Your task to perform on an android device: allow notifications from all sites in the chrome app Image 0: 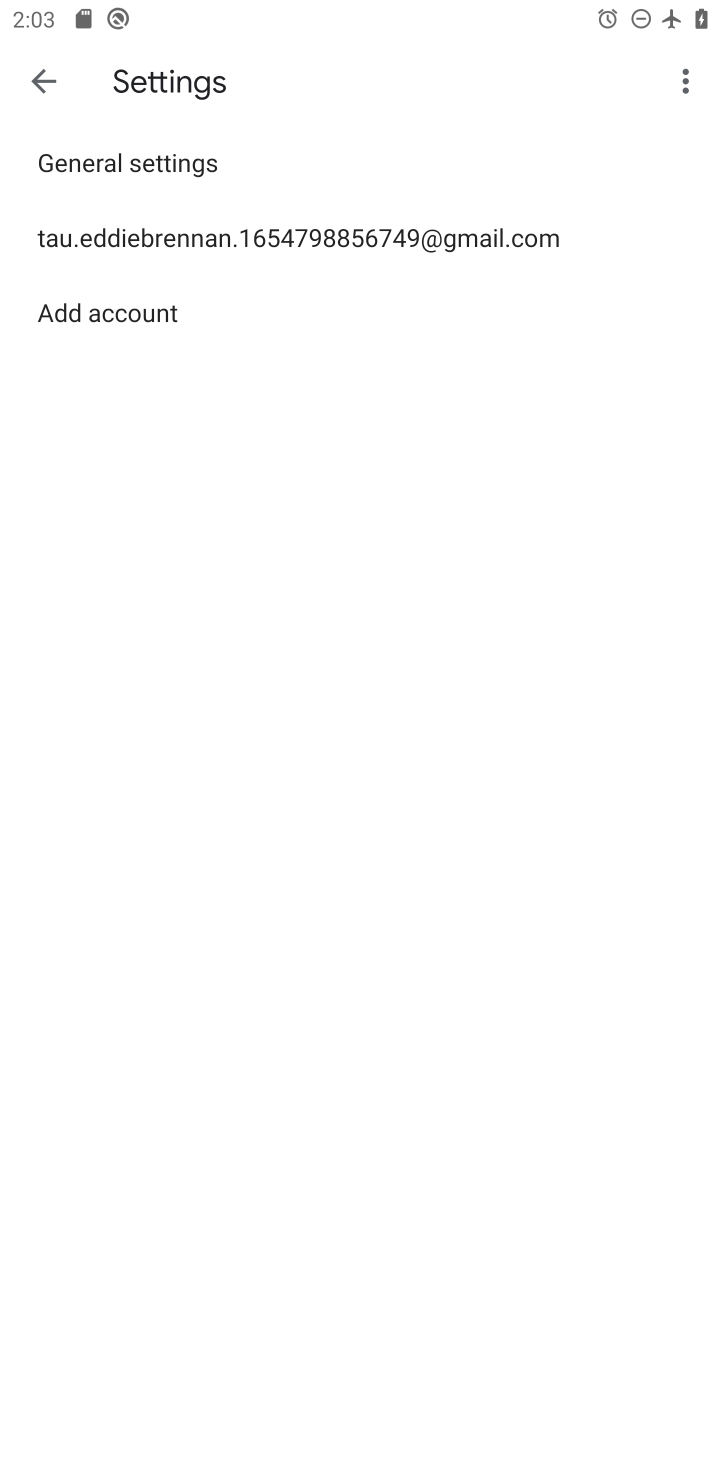
Step 0: press home button
Your task to perform on an android device: allow notifications from all sites in the chrome app Image 1: 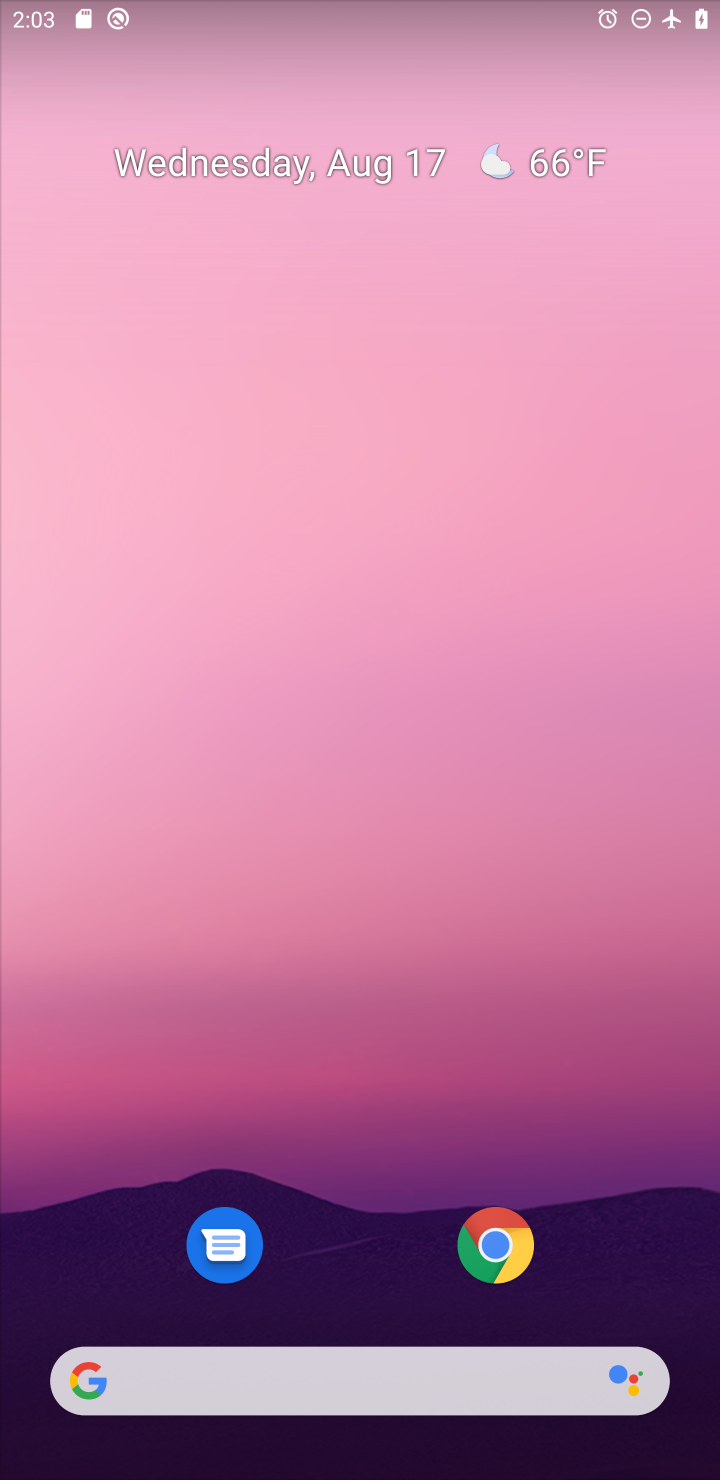
Step 1: click (495, 1237)
Your task to perform on an android device: allow notifications from all sites in the chrome app Image 2: 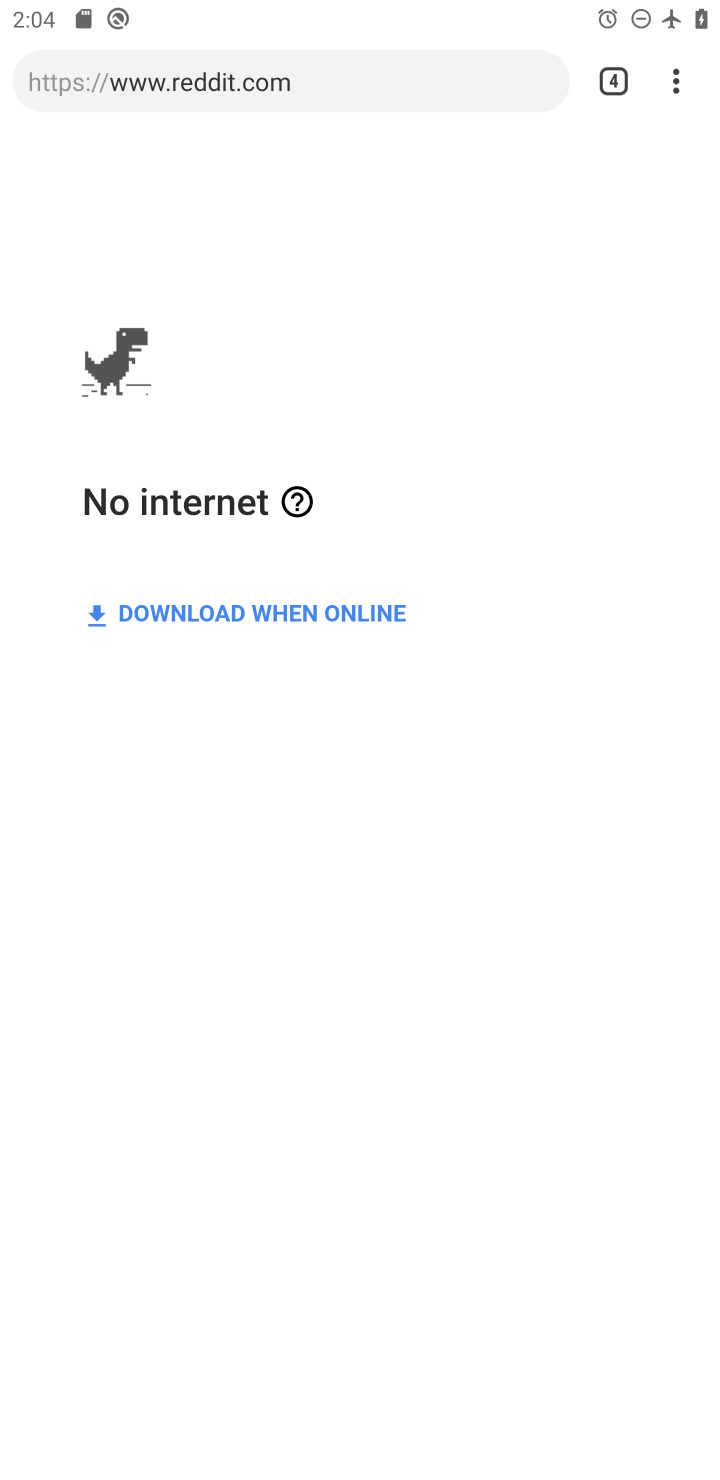
Step 2: drag from (677, 86) to (435, 1012)
Your task to perform on an android device: allow notifications from all sites in the chrome app Image 3: 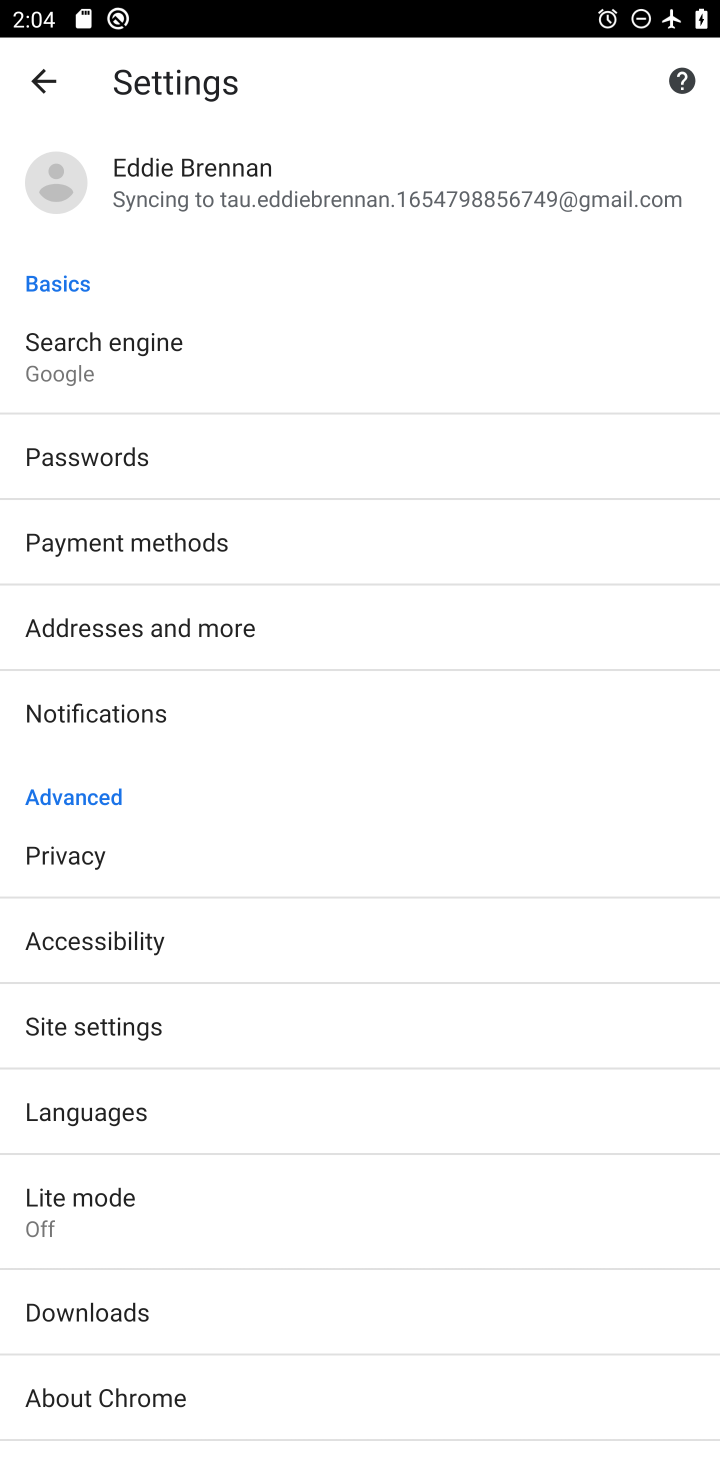
Step 3: click (81, 1018)
Your task to perform on an android device: allow notifications from all sites in the chrome app Image 4: 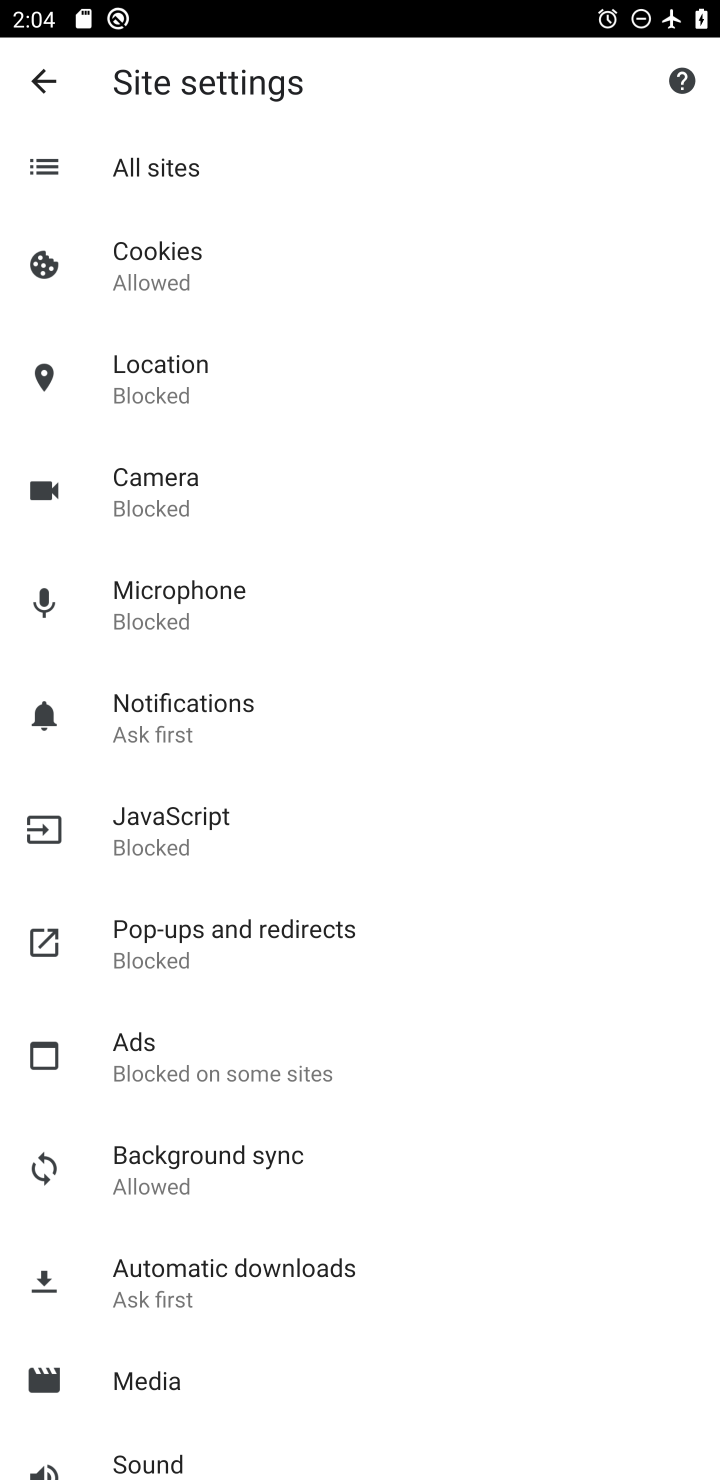
Step 4: click (143, 717)
Your task to perform on an android device: allow notifications from all sites in the chrome app Image 5: 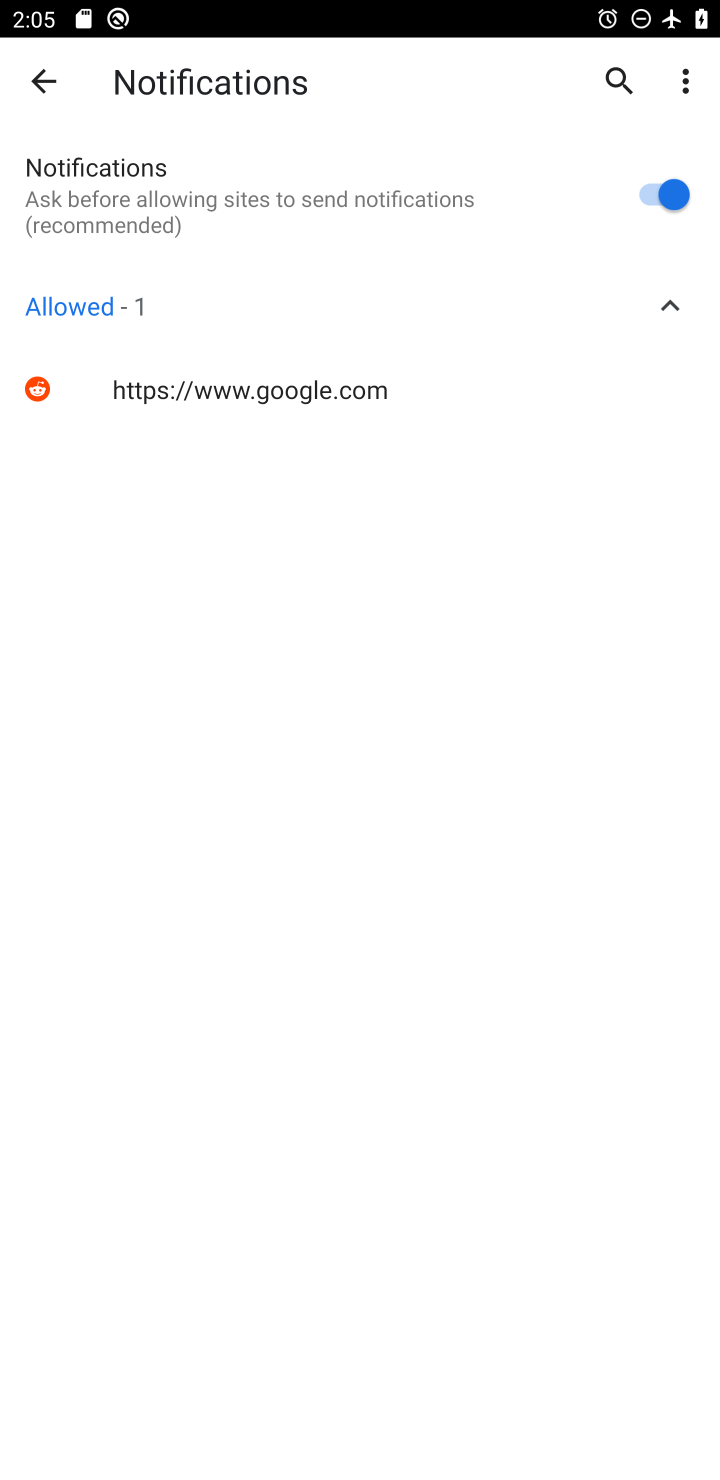
Step 5: task complete